Your task to perform on an android device: remove spam from my inbox in the gmail app Image 0: 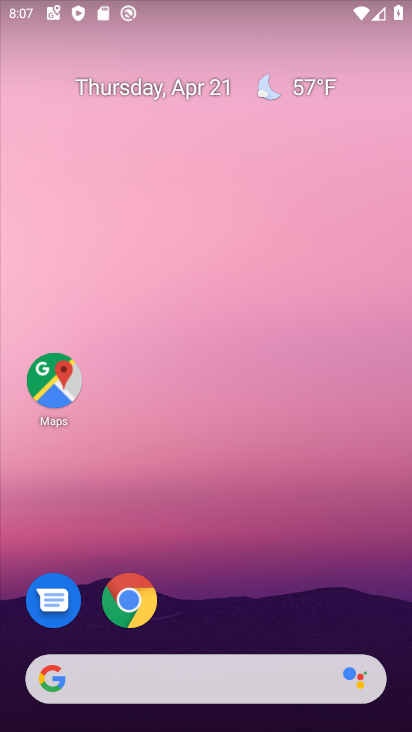
Step 0: drag from (233, 594) to (226, 223)
Your task to perform on an android device: remove spam from my inbox in the gmail app Image 1: 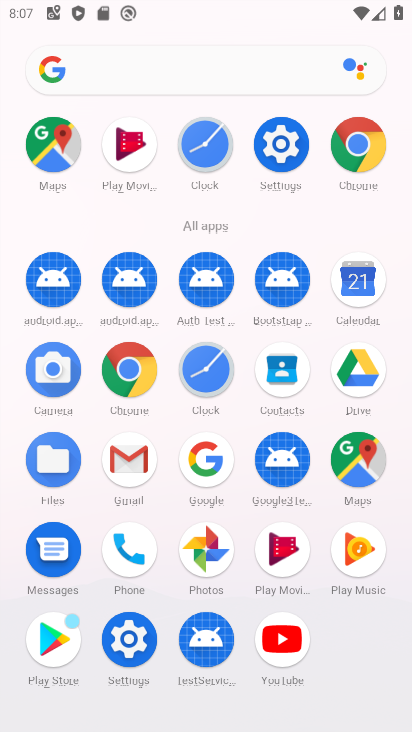
Step 1: click (133, 467)
Your task to perform on an android device: remove spam from my inbox in the gmail app Image 2: 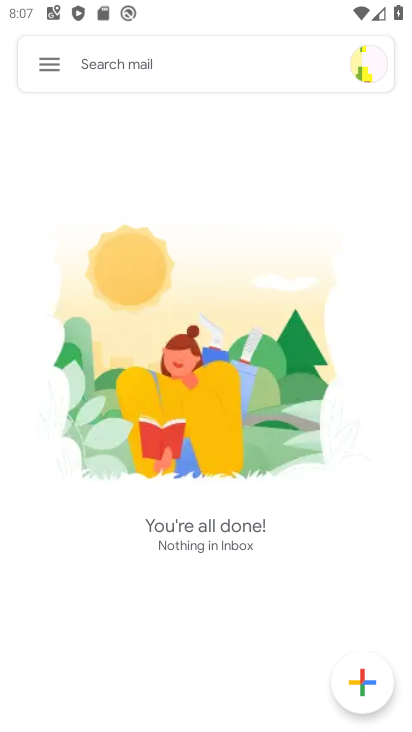
Step 2: click (127, 63)
Your task to perform on an android device: remove spam from my inbox in the gmail app Image 3: 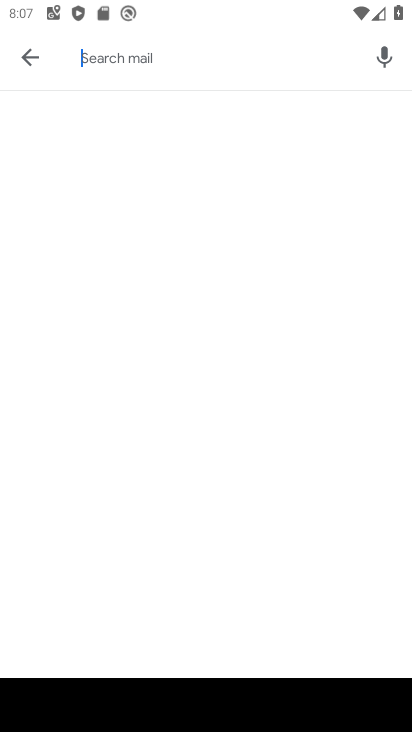
Step 3: click (23, 57)
Your task to perform on an android device: remove spam from my inbox in the gmail app Image 4: 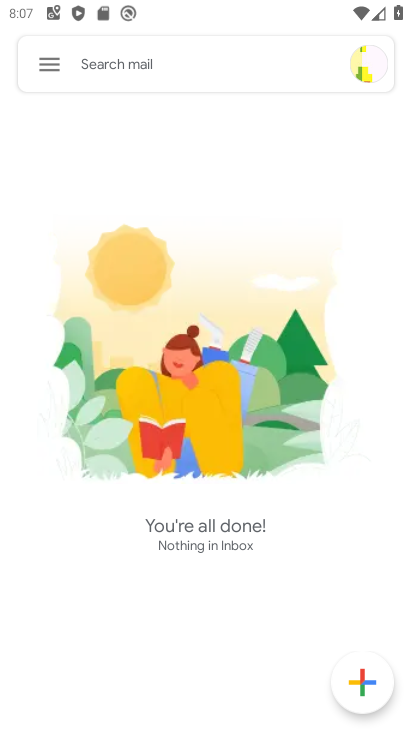
Step 4: click (51, 61)
Your task to perform on an android device: remove spam from my inbox in the gmail app Image 5: 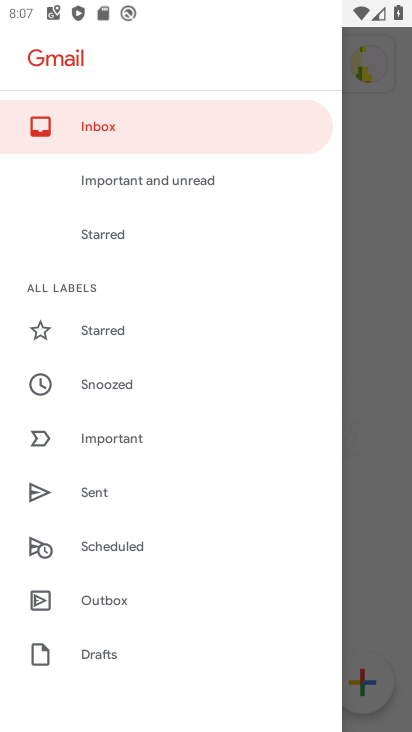
Step 5: drag from (165, 618) to (169, 285)
Your task to perform on an android device: remove spam from my inbox in the gmail app Image 6: 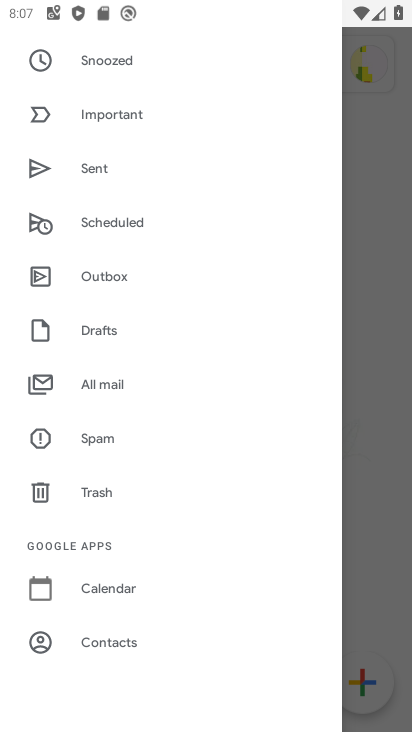
Step 6: click (98, 438)
Your task to perform on an android device: remove spam from my inbox in the gmail app Image 7: 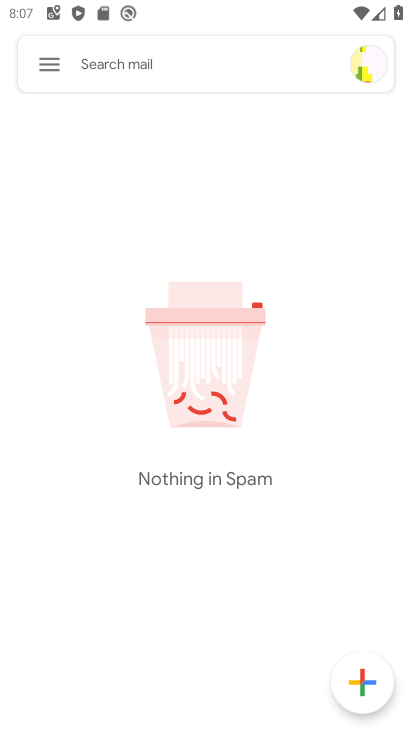
Step 7: task complete